Your task to perform on an android device: manage bookmarks in the chrome app Image 0: 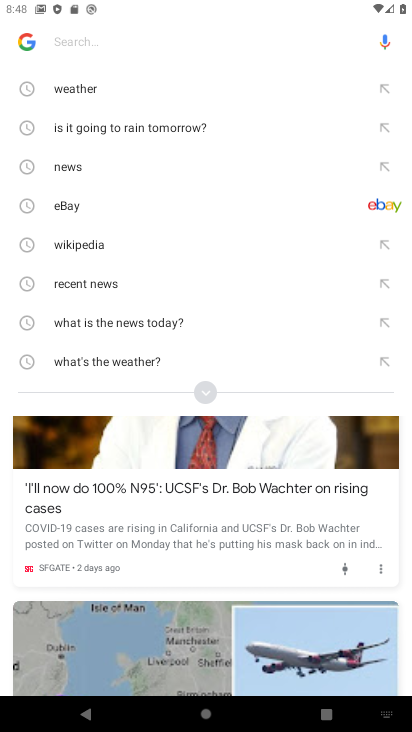
Step 0: press back button
Your task to perform on an android device: manage bookmarks in the chrome app Image 1: 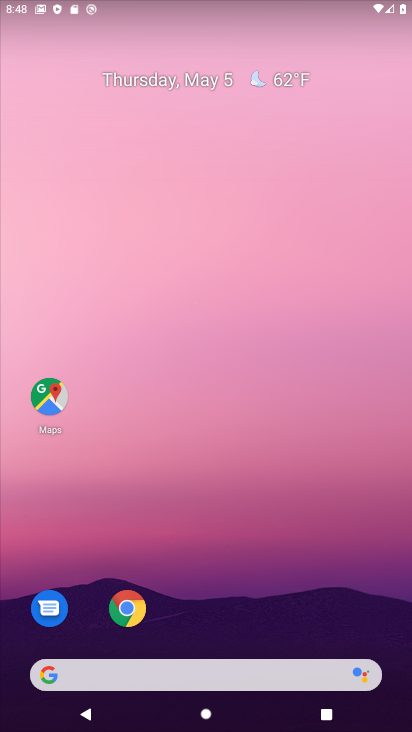
Step 1: drag from (243, 605) to (234, 31)
Your task to perform on an android device: manage bookmarks in the chrome app Image 2: 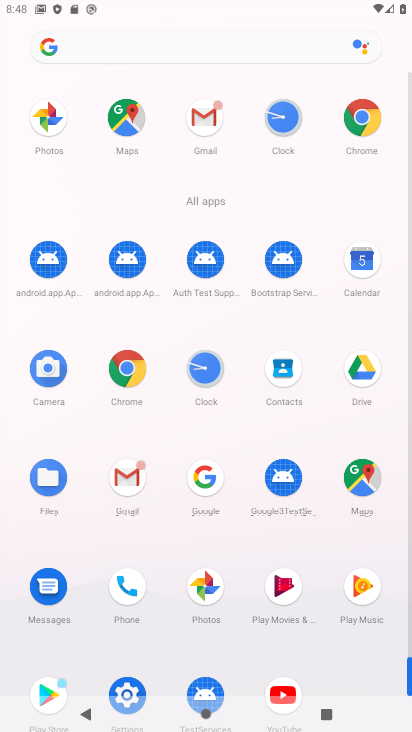
Step 2: click (126, 368)
Your task to perform on an android device: manage bookmarks in the chrome app Image 3: 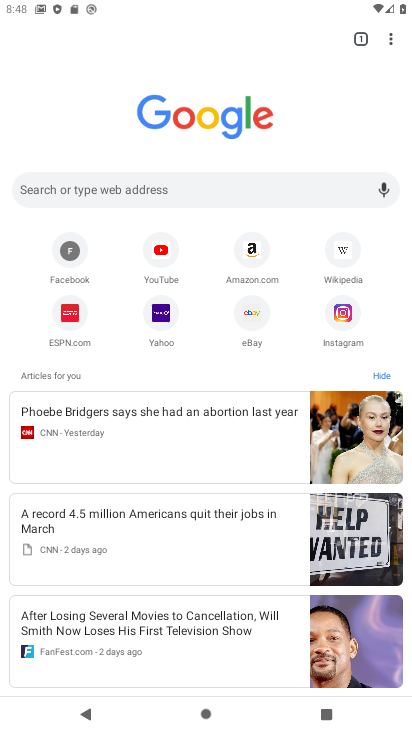
Step 3: drag from (387, 42) to (283, 140)
Your task to perform on an android device: manage bookmarks in the chrome app Image 4: 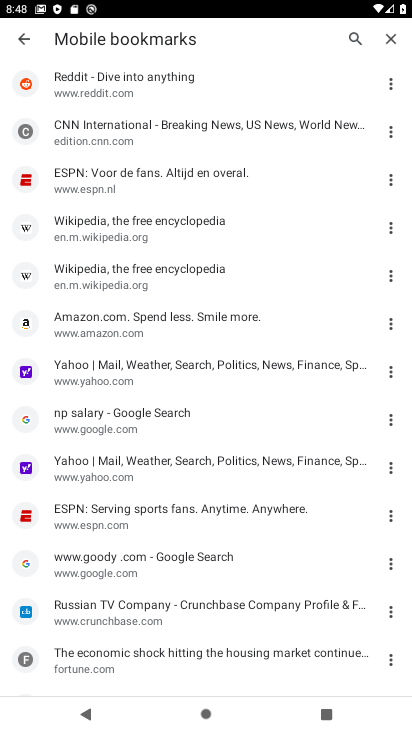
Step 4: click (388, 129)
Your task to perform on an android device: manage bookmarks in the chrome app Image 5: 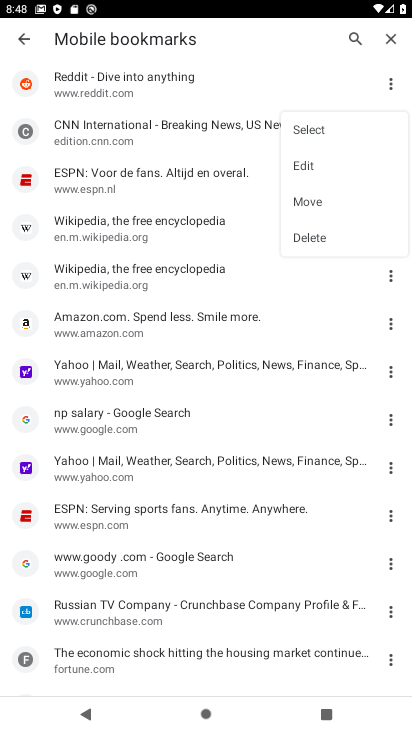
Step 5: click (314, 233)
Your task to perform on an android device: manage bookmarks in the chrome app Image 6: 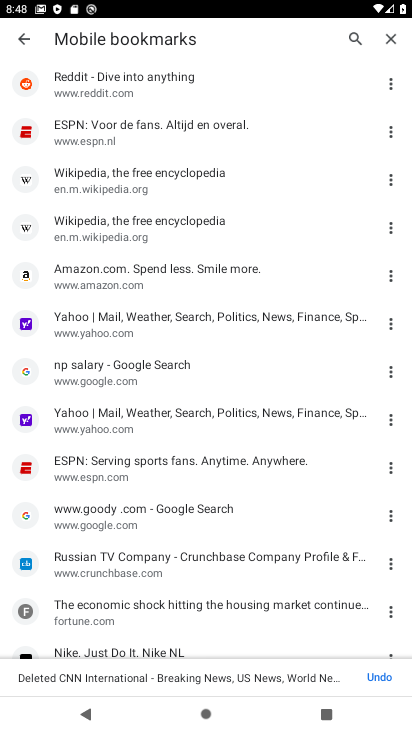
Step 6: click (392, 86)
Your task to perform on an android device: manage bookmarks in the chrome app Image 7: 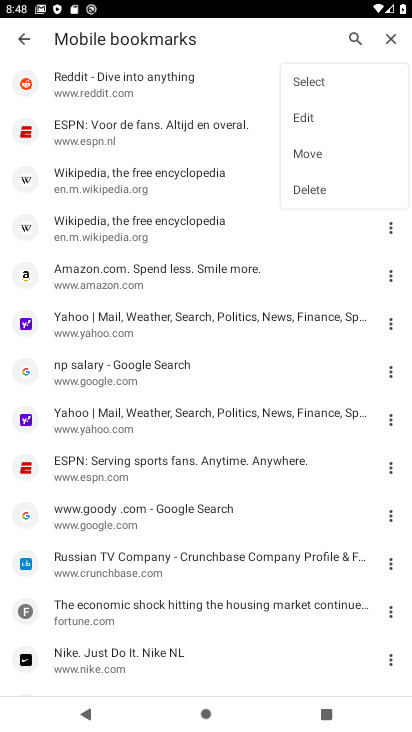
Step 7: click (331, 191)
Your task to perform on an android device: manage bookmarks in the chrome app Image 8: 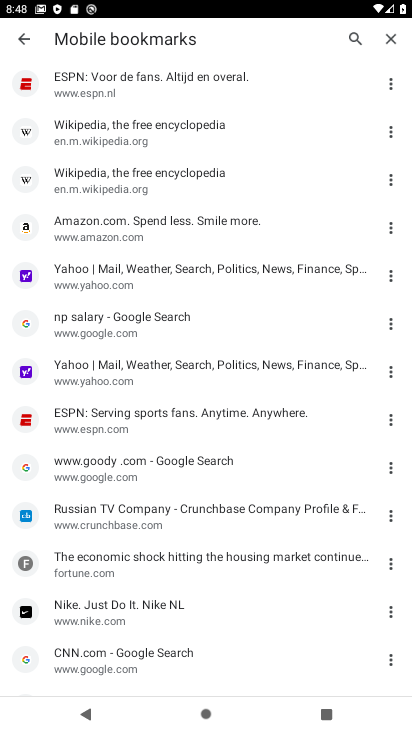
Step 8: click (390, 512)
Your task to perform on an android device: manage bookmarks in the chrome app Image 9: 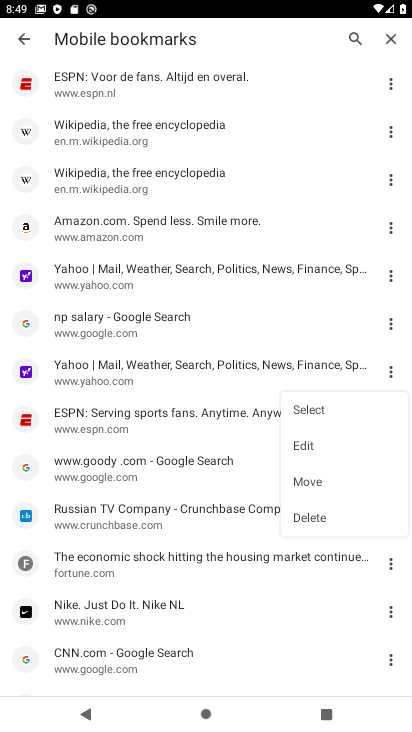
Step 9: click (359, 513)
Your task to perform on an android device: manage bookmarks in the chrome app Image 10: 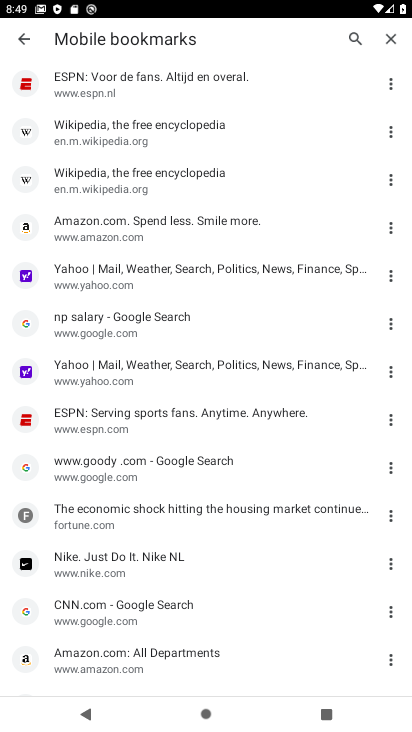
Step 10: task complete